Your task to perform on an android device: turn on showing notifications on the lock screen Image 0: 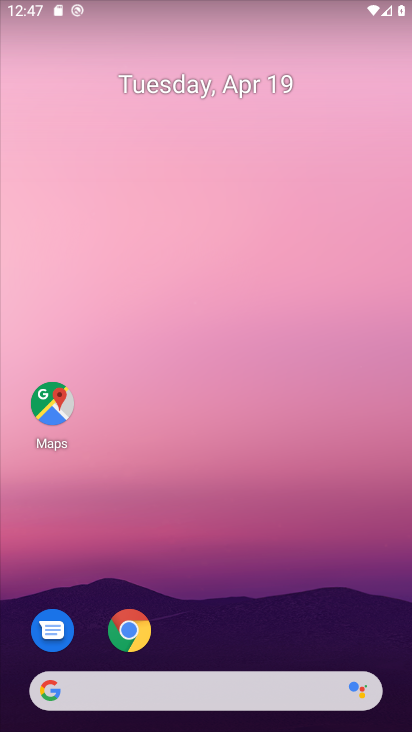
Step 0: drag from (241, 303) to (247, 121)
Your task to perform on an android device: turn on showing notifications on the lock screen Image 1: 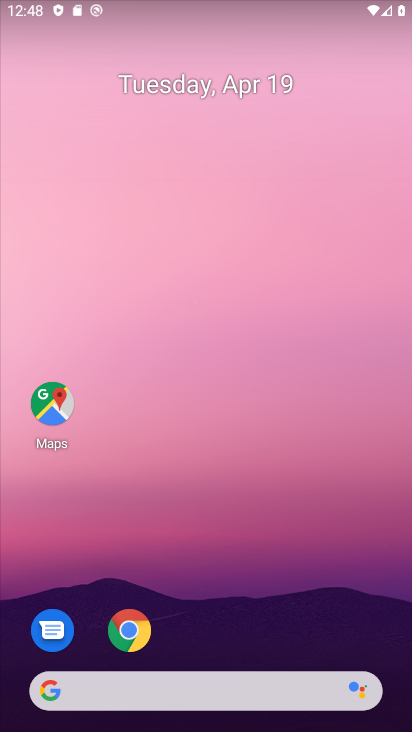
Step 1: drag from (248, 640) to (236, 77)
Your task to perform on an android device: turn on showing notifications on the lock screen Image 2: 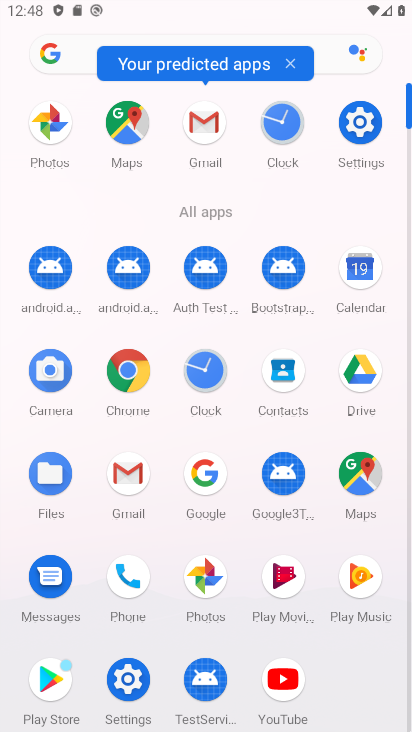
Step 2: click (353, 123)
Your task to perform on an android device: turn on showing notifications on the lock screen Image 3: 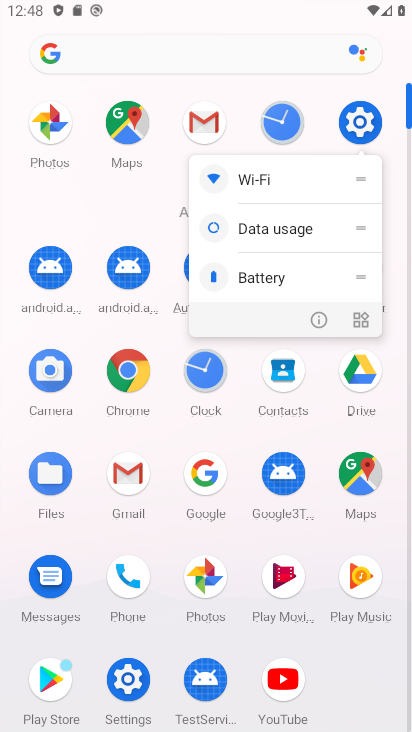
Step 3: click (367, 130)
Your task to perform on an android device: turn on showing notifications on the lock screen Image 4: 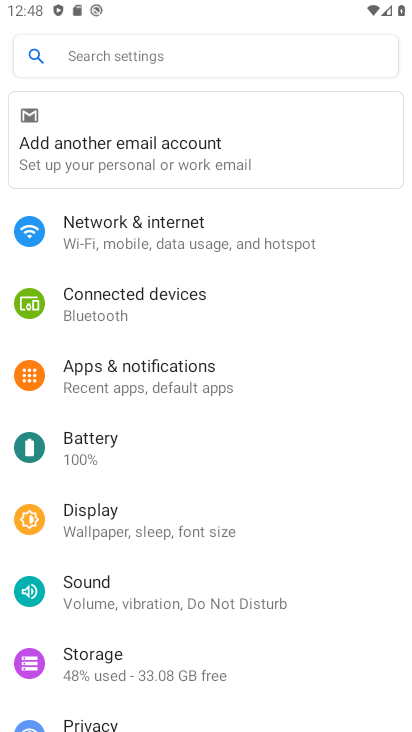
Step 4: click (157, 384)
Your task to perform on an android device: turn on showing notifications on the lock screen Image 5: 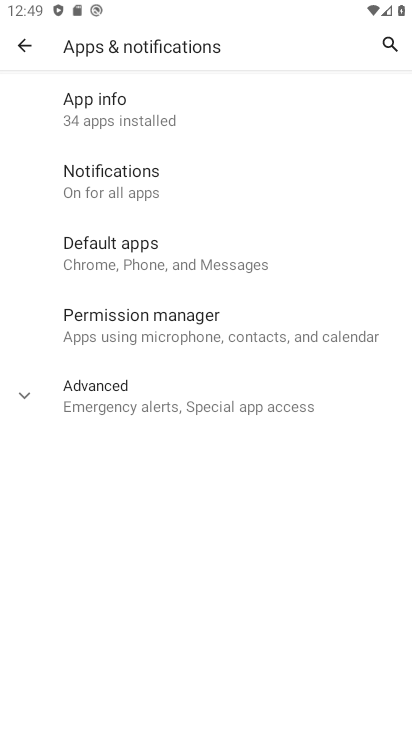
Step 5: click (23, 46)
Your task to perform on an android device: turn on showing notifications on the lock screen Image 6: 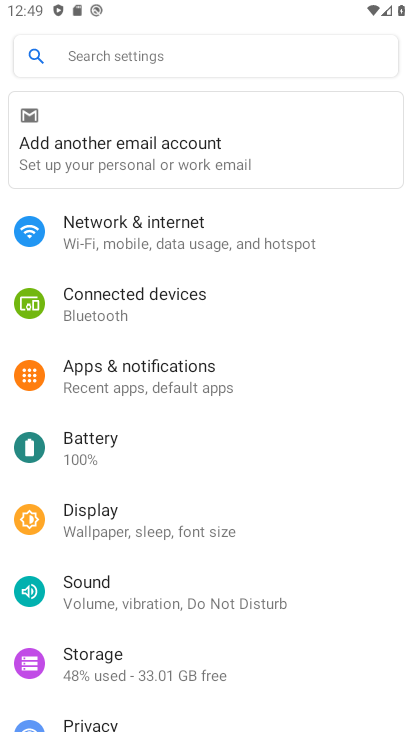
Step 6: click (129, 387)
Your task to perform on an android device: turn on showing notifications on the lock screen Image 7: 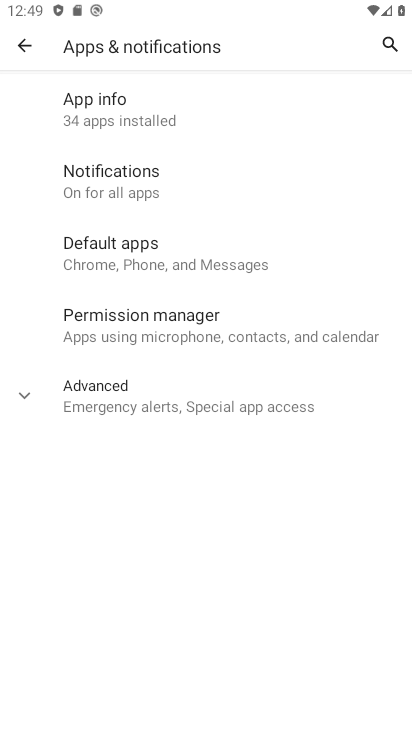
Step 7: click (131, 182)
Your task to perform on an android device: turn on showing notifications on the lock screen Image 8: 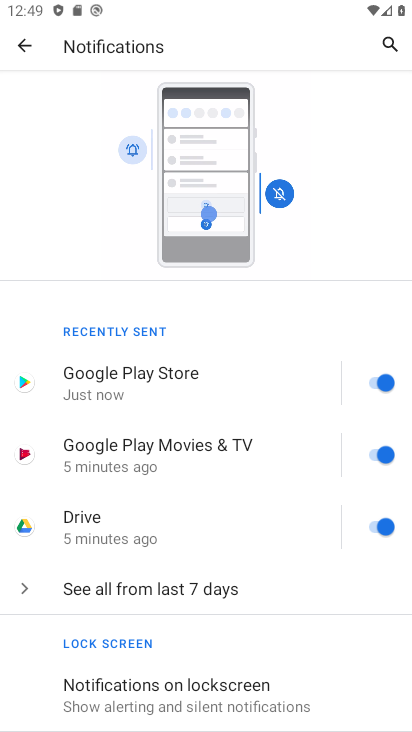
Step 8: drag from (257, 554) to (302, 217)
Your task to perform on an android device: turn on showing notifications on the lock screen Image 9: 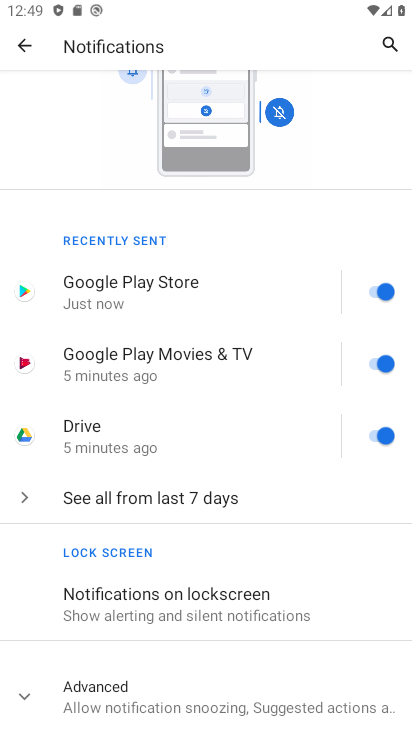
Step 9: click (198, 604)
Your task to perform on an android device: turn on showing notifications on the lock screen Image 10: 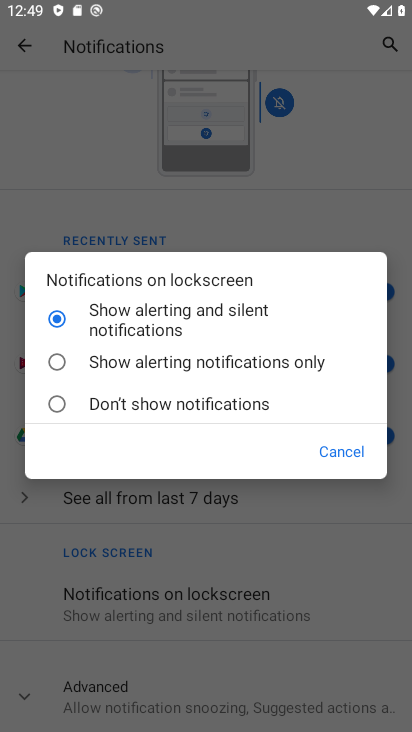
Step 10: click (122, 317)
Your task to perform on an android device: turn on showing notifications on the lock screen Image 11: 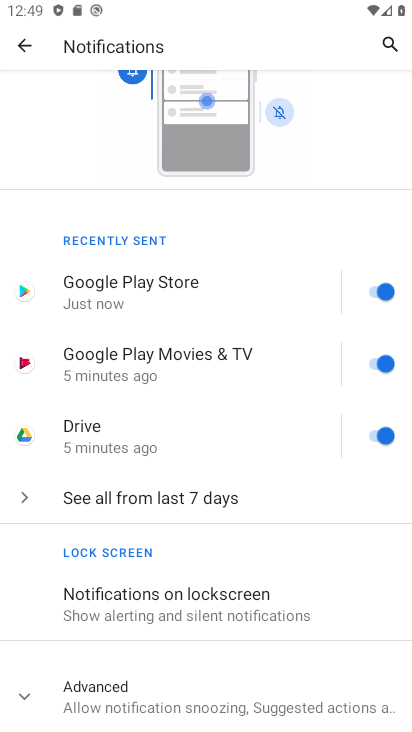
Step 11: task complete